Your task to perform on an android device: check data usage Image 0: 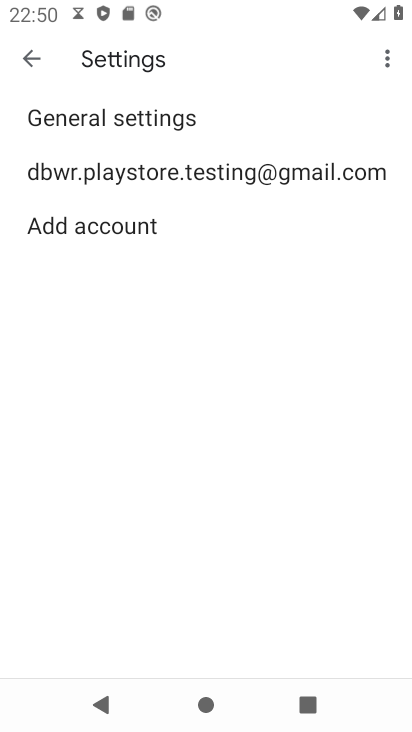
Step 0: press home button
Your task to perform on an android device: check data usage Image 1: 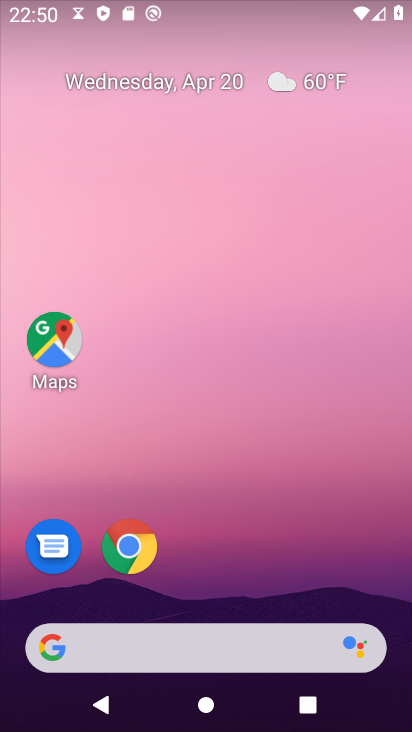
Step 1: drag from (231, 540) to (233, 43)
Your task to perform on an android device: check data usage Image 2: 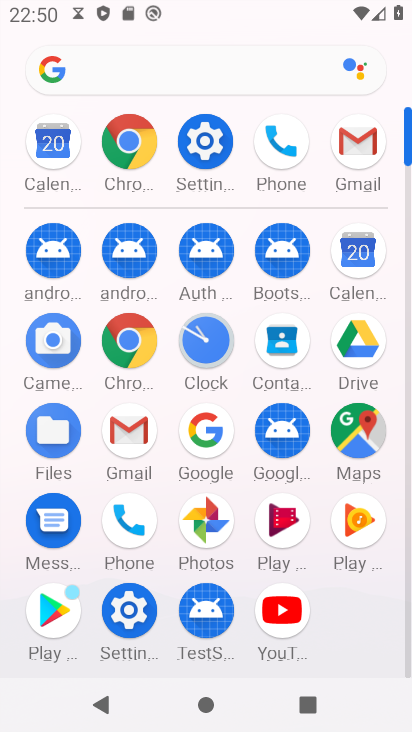
Step 2: click (212, 144)
Your task to perform on an android device: check data usage Image 3: 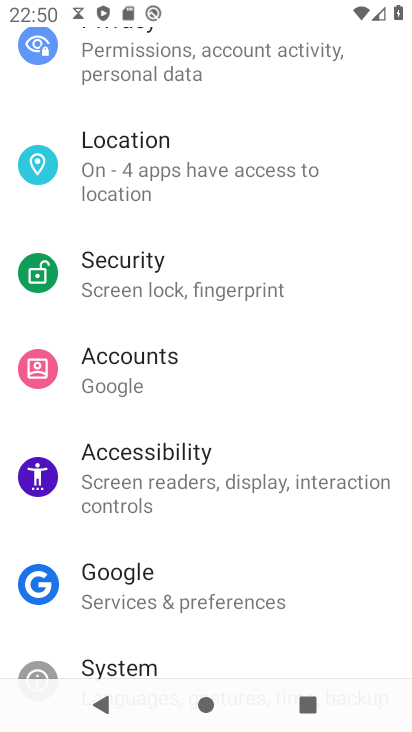
Step 3: drag from (239, 198) to (215, 592)
Your task to perform on an android device: check data usage Image 4: 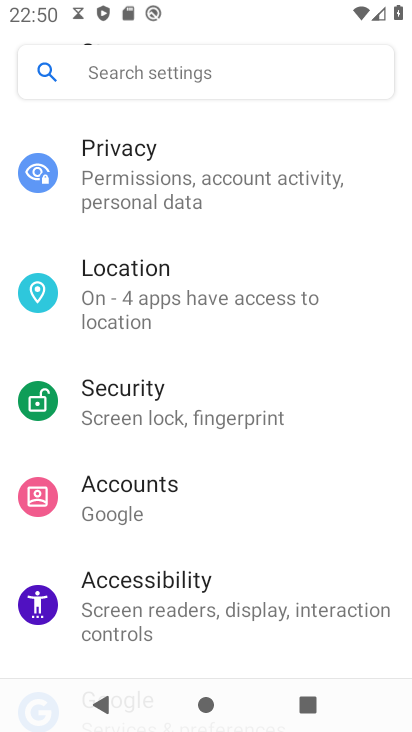
Step 4: drag from (227, 292) to (207, 636)
Your task to perform on an android device: check data usage Image 5: 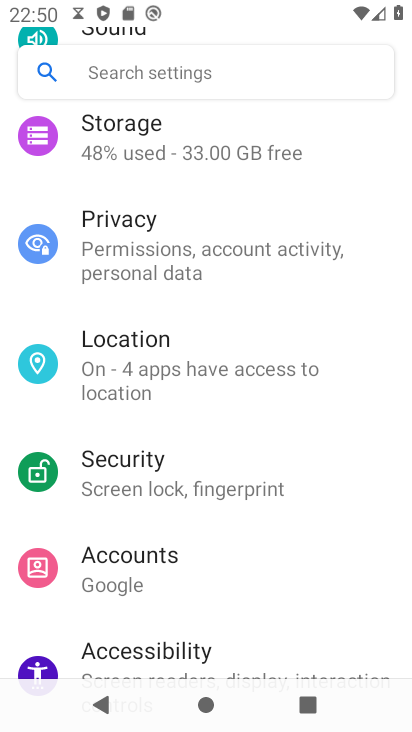
Step 5: drag from (232, 206) to (148, 635)
Your task to perform on an android device: check data usage Image 6: 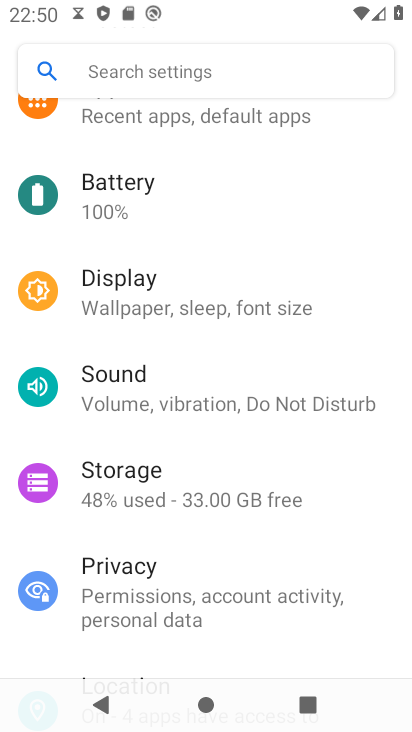
Step 6: drag from (218, 192) to (125, 715)
Your task to perform on an android device: check data usage Image 7: 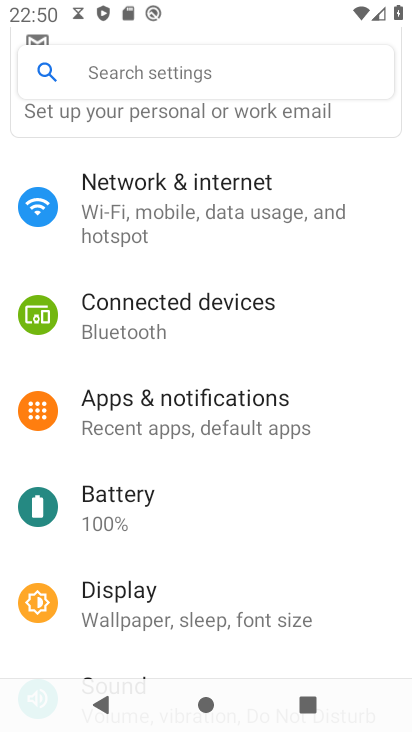
Step 7: drag from (185, 252) to (136, 589)
Your task to perform on an android device: check data usage Image 8: 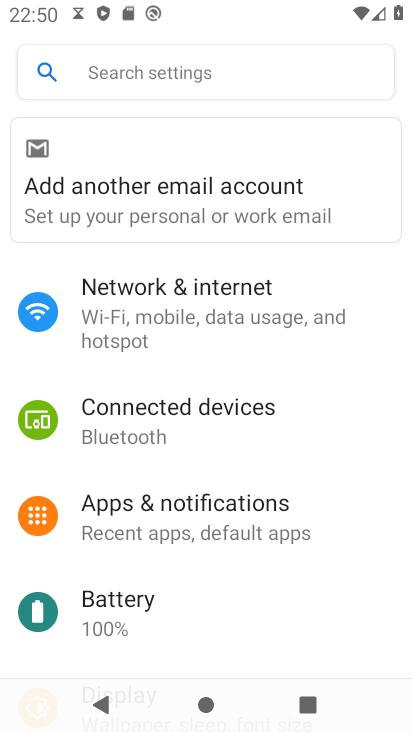
Step 8: click (172, 321)
Your task to perform on an android device: check data usage Image 9: 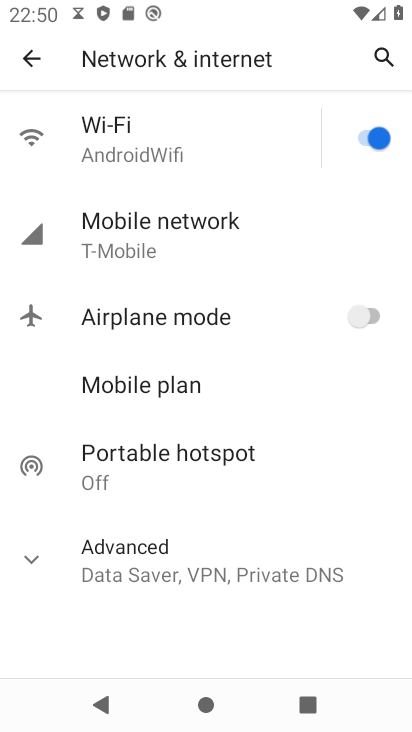
Step 9: click (209, 231)
Your task to perform on an android device: check data usage Image 10: 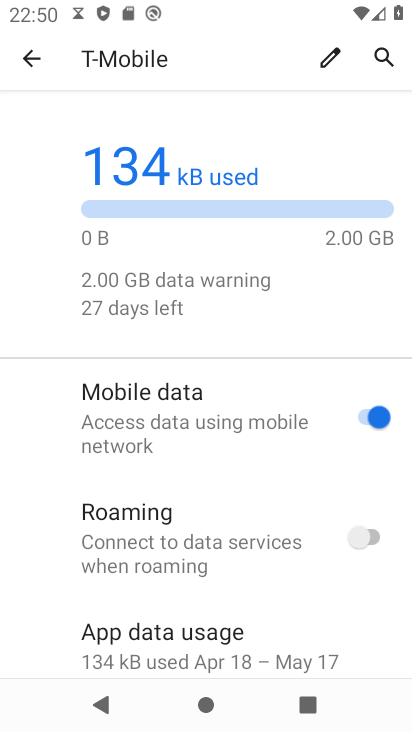
Step 10: task complete